Your task to perform on an android device: toggle show notifications on the lock screen Image 0: 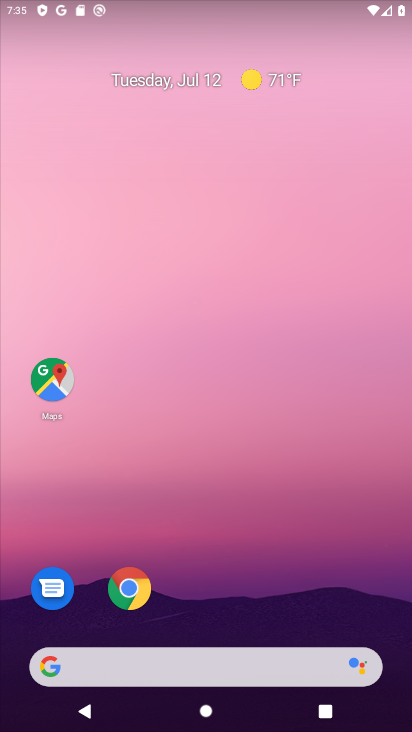
Step 0: drag from (6, 721) to (369, 86)
Your task to perform on an android device: toggle show notifications on the lock screen Image 1: 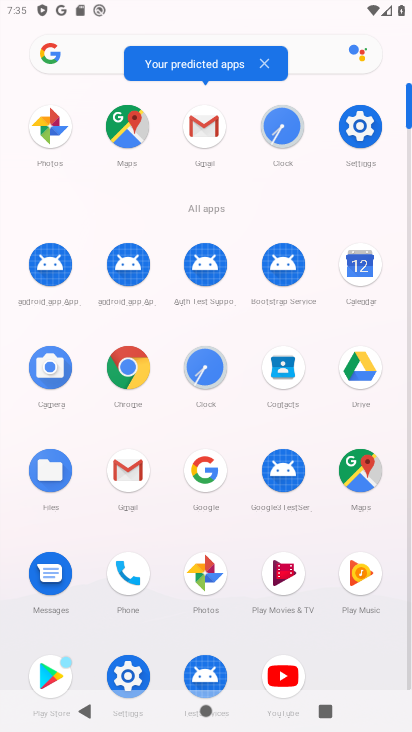
Step 1: click (126, 666)
Your task to perform on an android device: toggle show notifications on the lock screen Image 2: 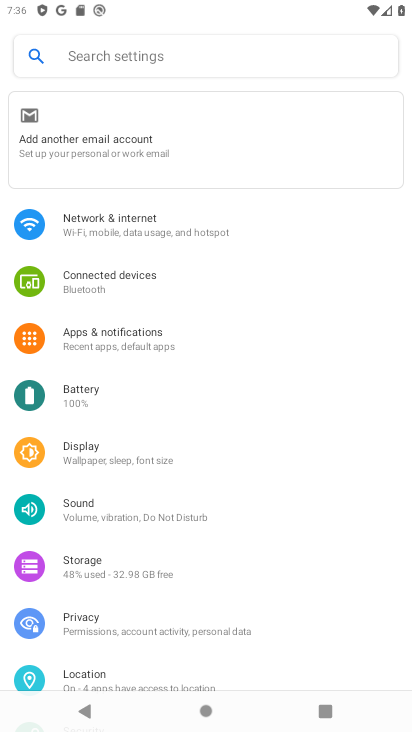
Step 2: click (104, 335)
Your task to perform on an android device: toggle show notifications on the lock screen Image 3: 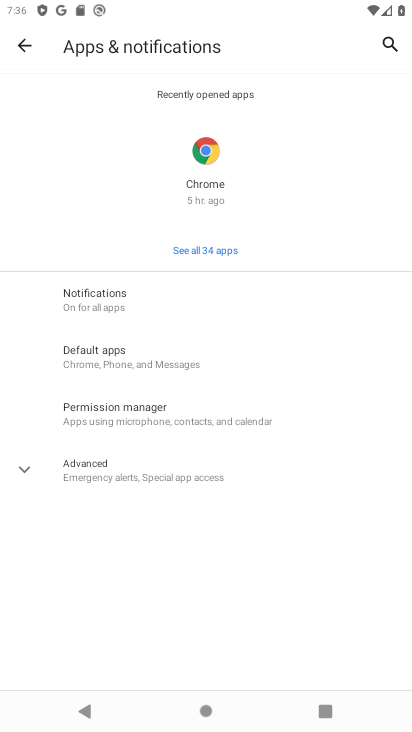
Step 3: click (120, 299)
Your task to perform on an android device: toggle show notifications on the lock screen Image 4: 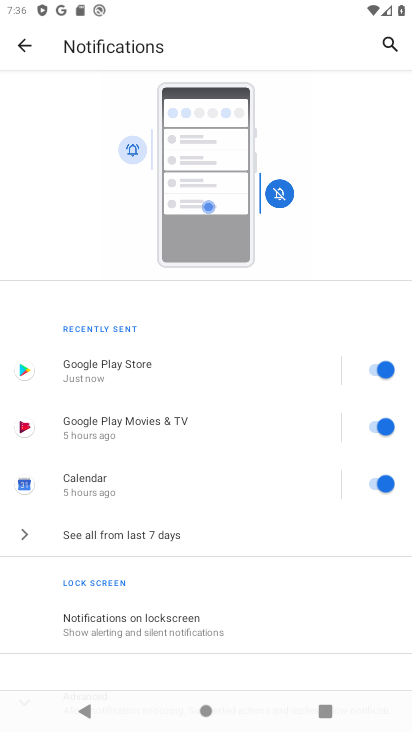
Step 4: click (132, 624)
Your task to perform on an android device: toggle show notifications on the lock screen Image 5: 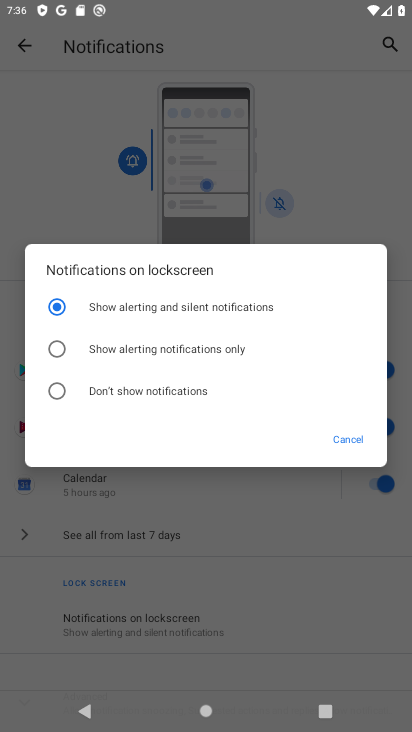
Step 5: task complete